Your task to perform on an android device: change keyboard looks Image 0: 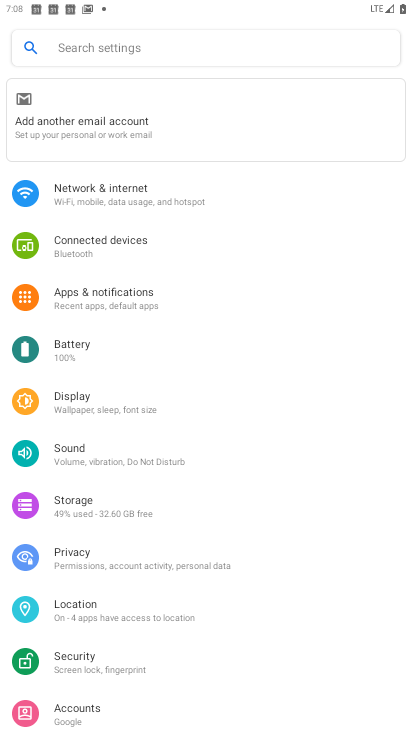
Step 0: press home button
Your task to perform on an android device: change keyboard looks Image 1: 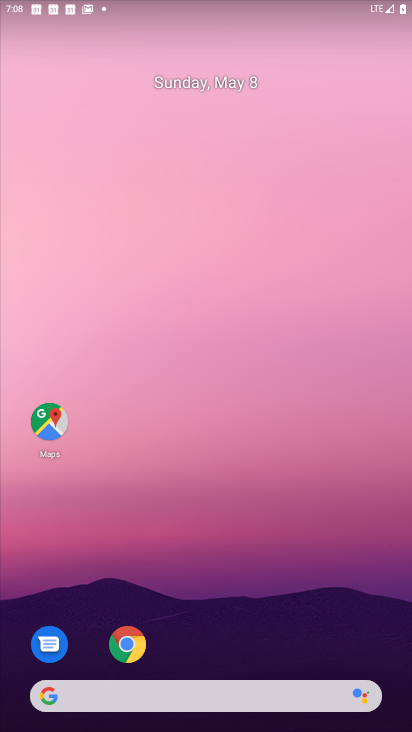
Step 1: drag from (300, 613) to (217, 111)
Your task to perform on an android device: change keyboard looks Image 2: 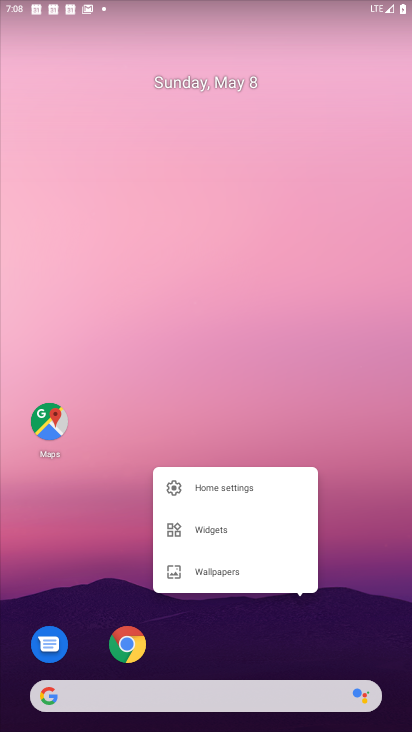
Step 2: click (263, 203)
Your task to perform on an android device: change keyboard looks Image 3: 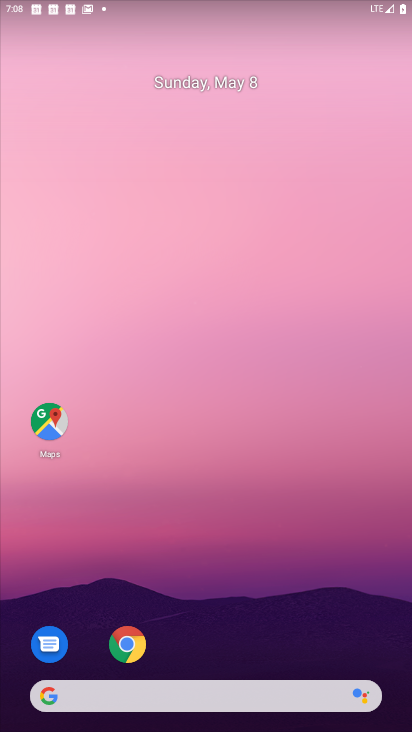
Step 3: drag from (276, 655) to (258, 270)
Your task to perform on an android device: change keyboard looks Image 4: 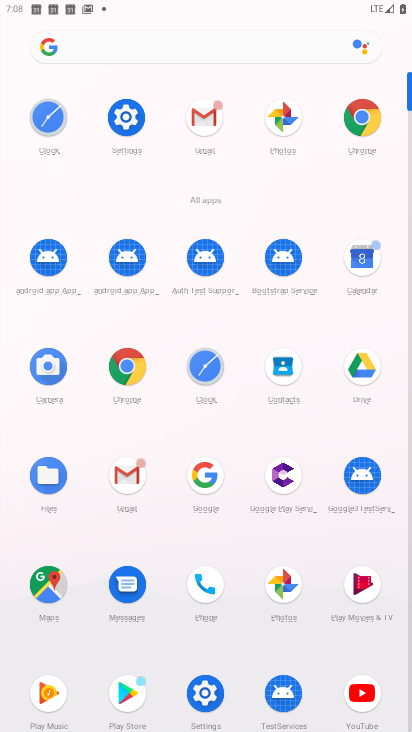
Step 4: click (205, 707)
Your task to perform on an android device: change keyboard looks Image 5: 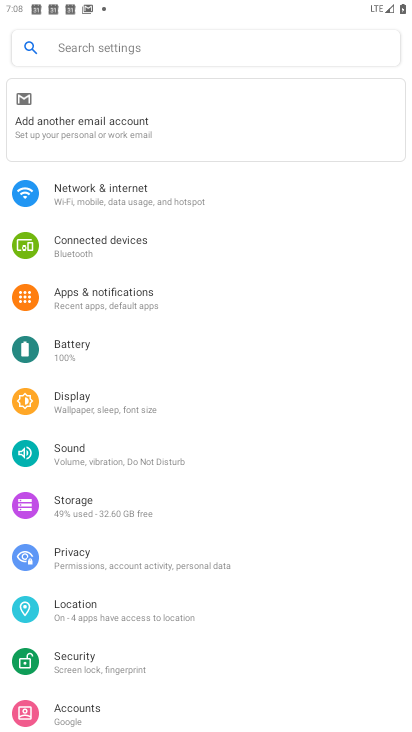
Step 5: drag from (200, 625) to (346, 12)
Your task to perform on an android device: change keyboard looks Image 6: 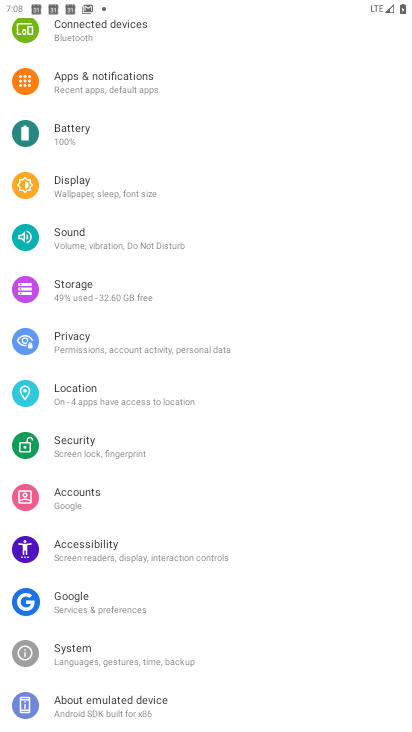
Step 6: click (103, 654)
Your task to perform on an android device: change keyboard looks Image 7: 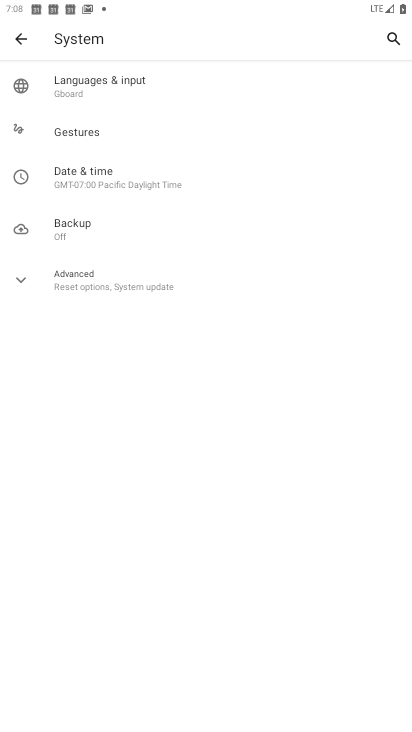
Step 7: click (129, 104)
Your task to perform on an android device: change keyboard looks Image 8: 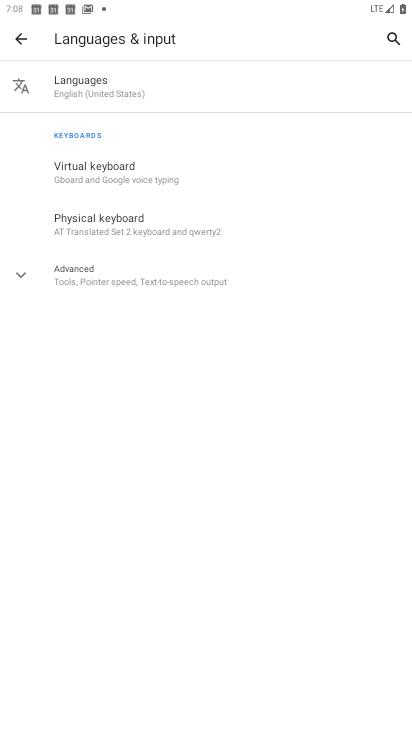
Step 8: click (113, 81)
Your task to perform on an android device: change keyboard looks Image 9: 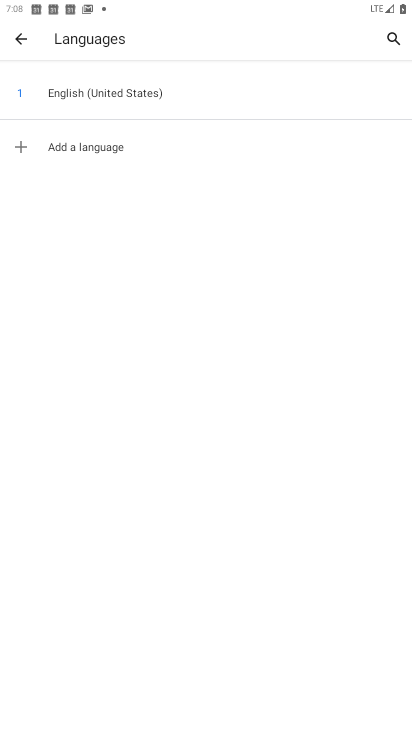
Step 9: click (25, 36)
Your task to perform on an android device: change keyboard looks Image 10: 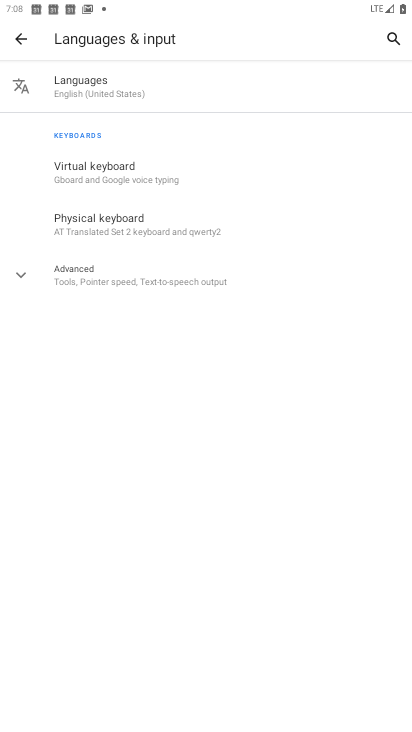
Step 10: click (96, 173)
Your task to perform on an android device: change keyboard looks Image 11: 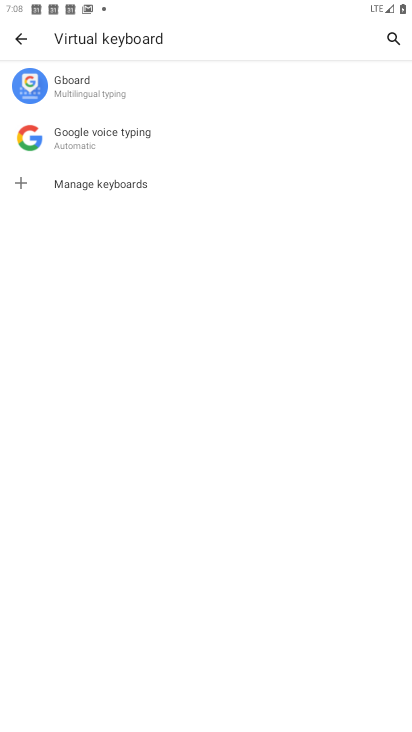
Step 11: click (134, 85)
Your task to perform on an android device: change keyboard looks Image 12: 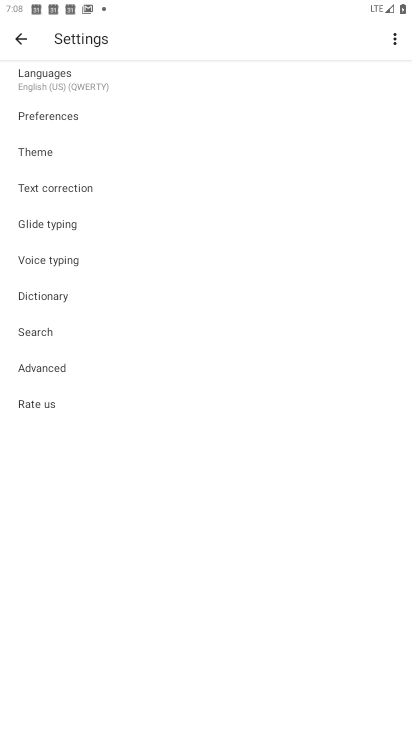
Step 12: click (71, 157)
Your task to perform on an android device: change keyboard looks Image 13: 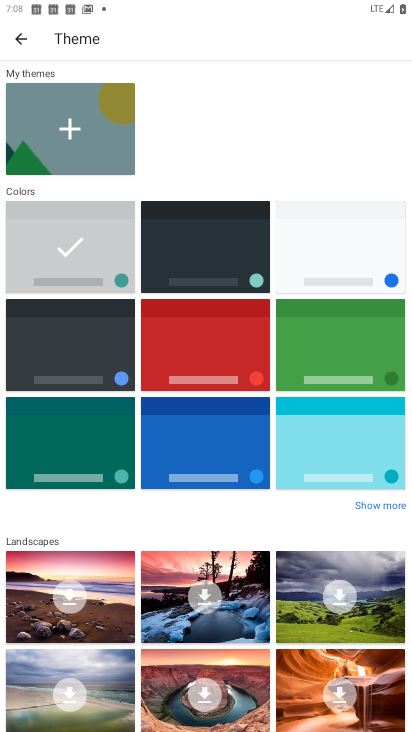
Step 13: click (216, 223)
Your task to perform on an android device: change keyboard looks Image 14: 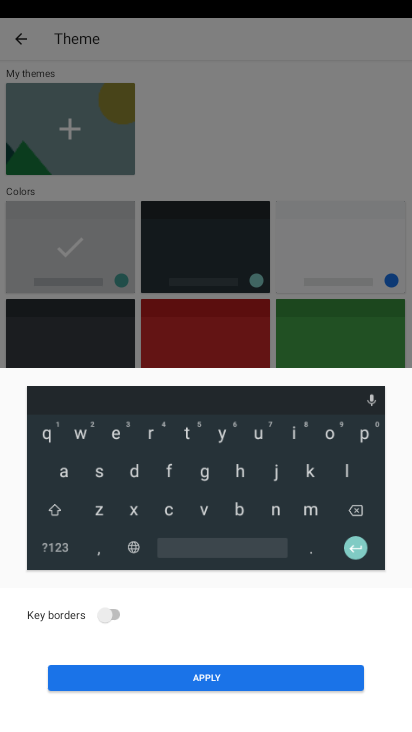
Step 14: click (185, 681)
Your task to perform on an android device: change keyboard looks Image 15: 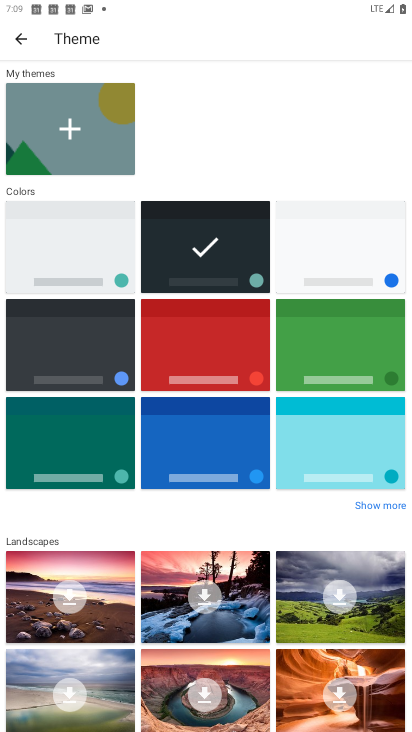
Step 15: task complete